Your task to perform on an android device: What's the weather? Image 0: 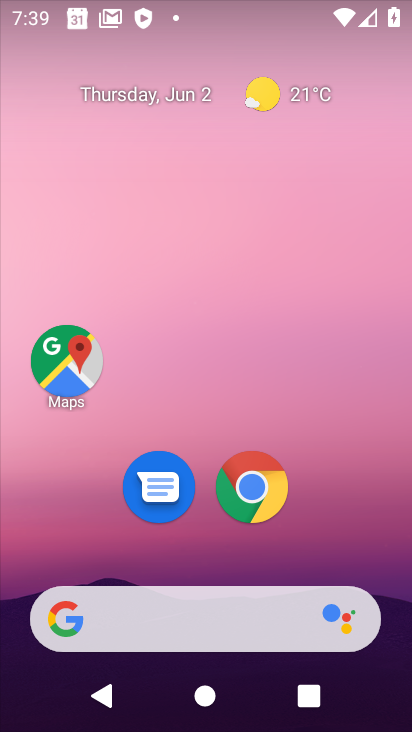
Step 0: drag from (228, 485) to (129, 20)
Your task to perform on an android device: What's the weather? Image 1: 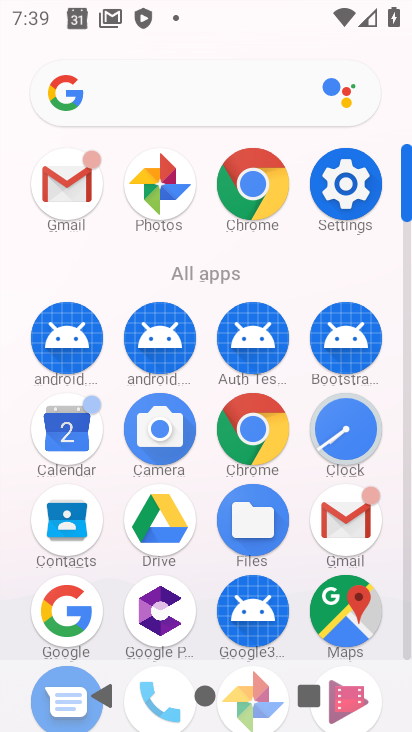
Step 1: click (250, 248)
Your task to perform on an android device: What's the weather? Image 2: 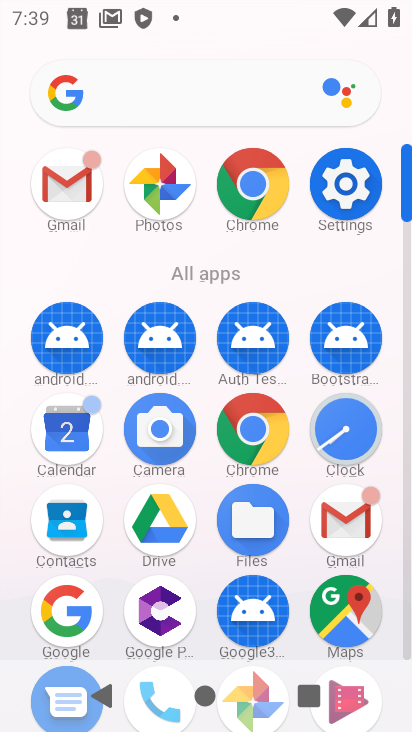
Step 2: click (253, 184)
Your task to perform on an android device: What's the weather? Image 3: 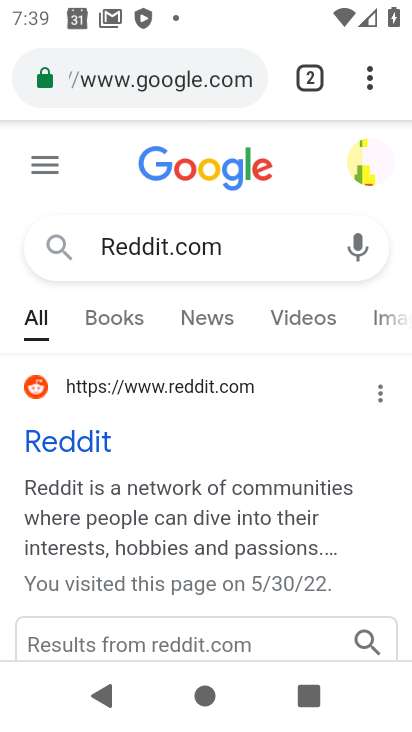
Step 3: click (202, 72)
Your task to perform on an android device: What's the weather? Image 4: 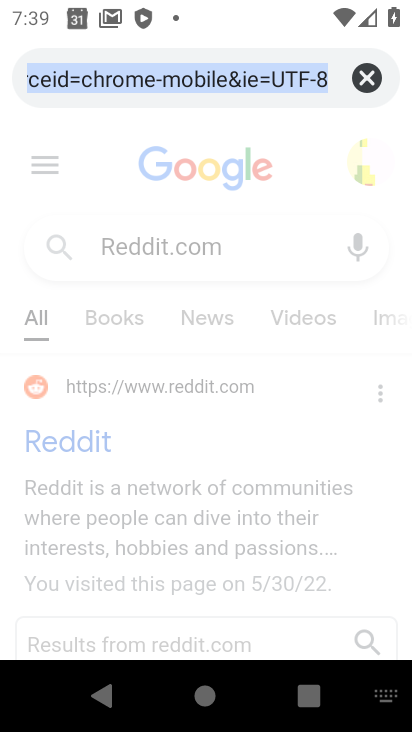
Step 4: type "Weather"
Your task to perform on an android device: What's the weather? Image 5: 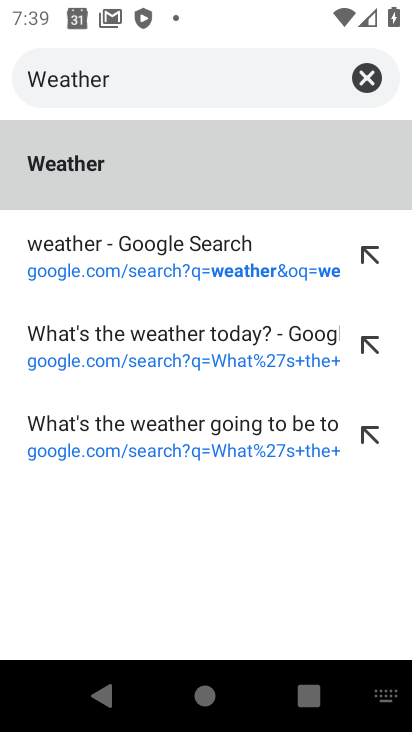
Step 5: click (47, 158)
Your task to perform on an android device: What's the weather? Image 6: 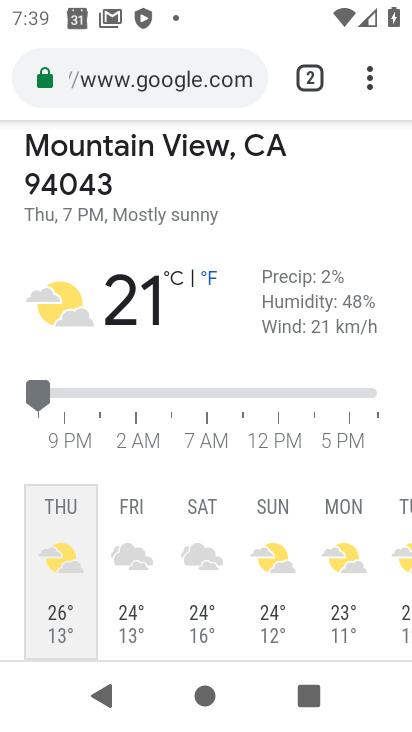
Step 6: task complete